Your task to perform on an android device: Go to privacy settings Image 0: 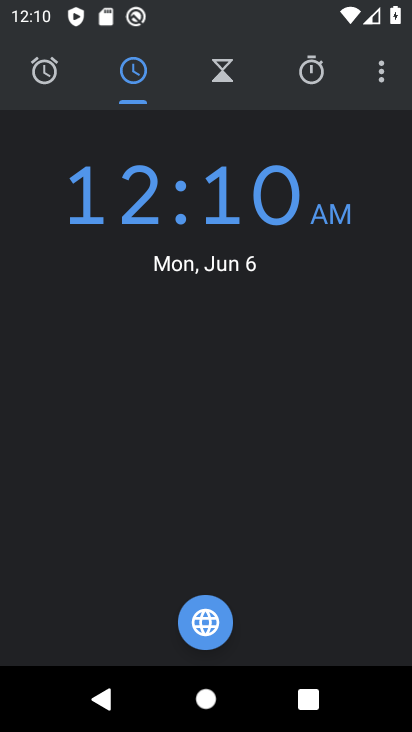
Step 0: press home button
Your task to perform on an android device: Go to privacy settings Image 1: 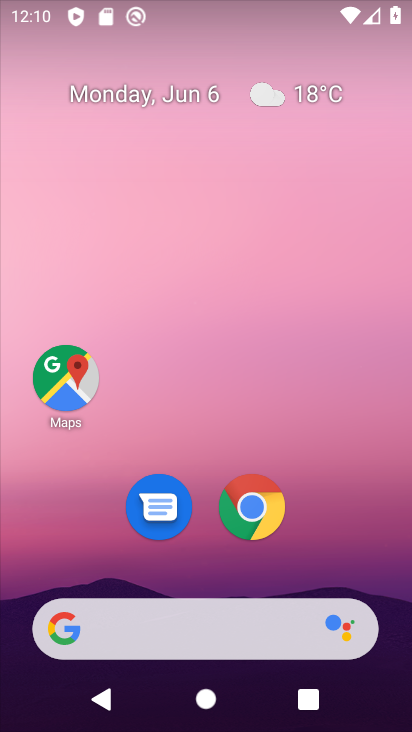
Step 1: drag from (259, 581) to (302, 117)
Your task to perform on an android device: Go to privacy settings Image 2: 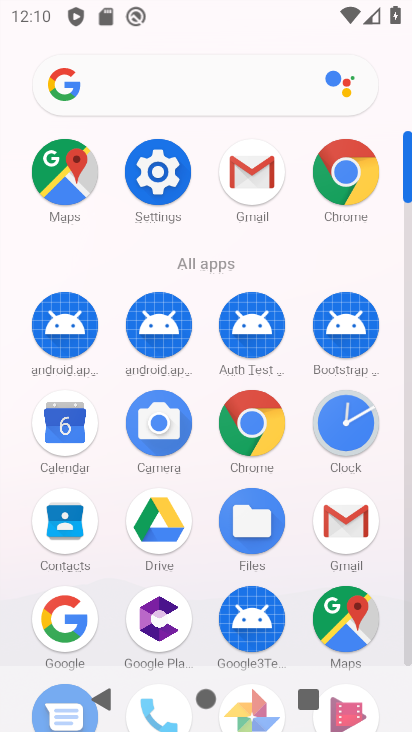
Step 2: click (158, 178)
Your task to perform on an android device: Go to privacy settings Image 3: 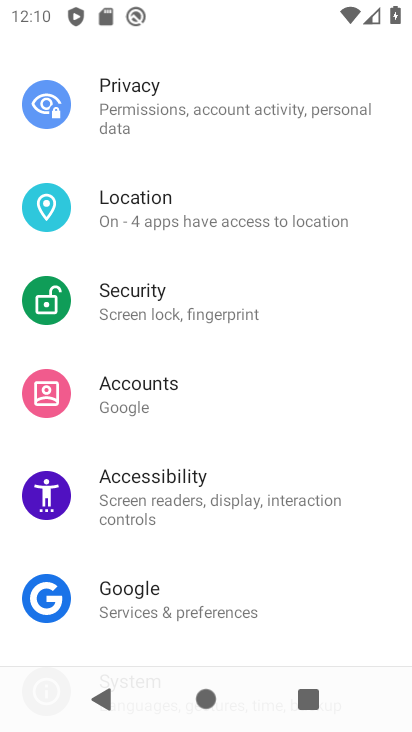
Step 3: drag from (184, 548) to (194, 288)
Your task to perform on an android device: Go to privacy settings Image 4: 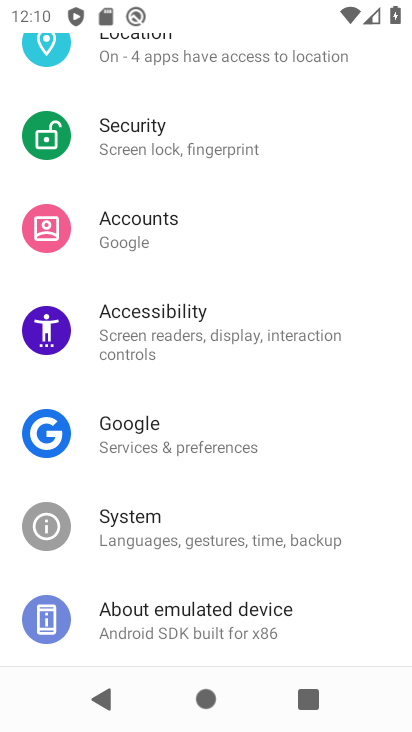
Step 4: drag from (162, 202) to (197, 595)
Your task to perform on an android device: Go to privacy settings Image 5: 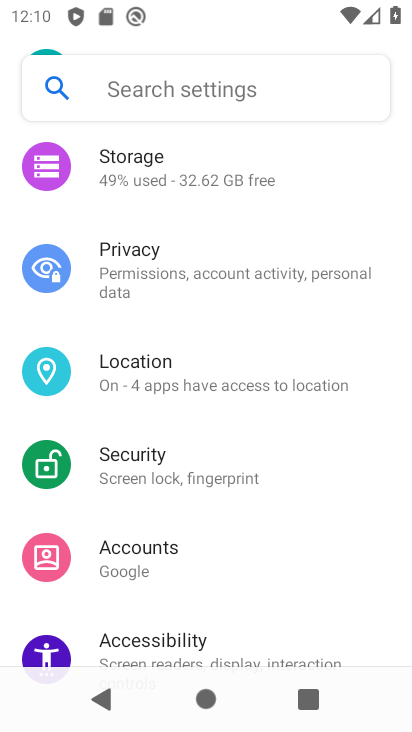
Step 5: click (164, 269)
Your task to perform on an android device: Go to privacy settings Image 6: 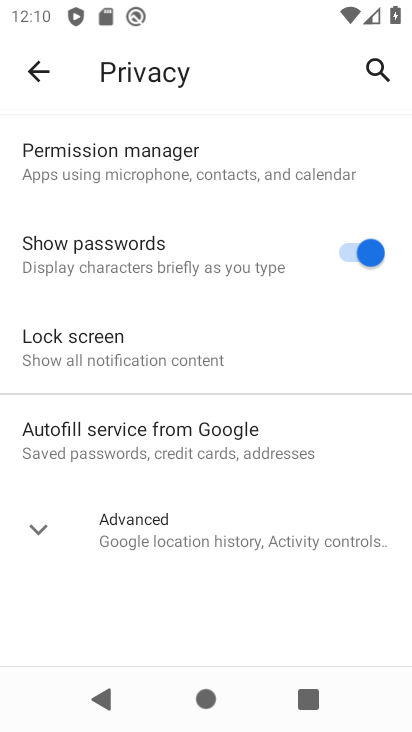
Step 6: task complete